Your task to perform on an android device: Open the stopwatch Image 0: 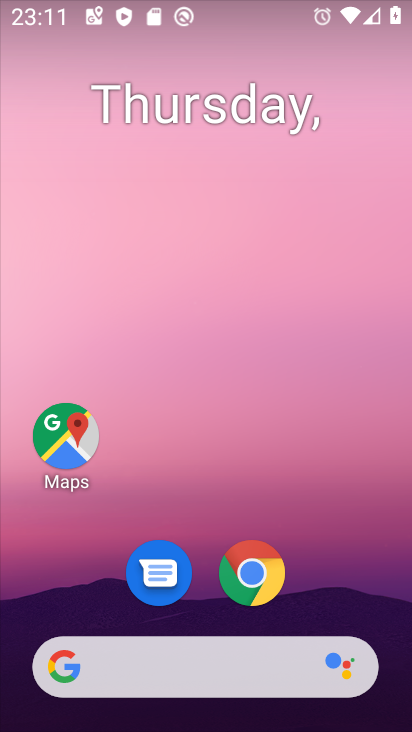
Step 0: drag from (335, 554) to (316, 147)
Your task to perform on an android device: Open the stopwatch Image 1: 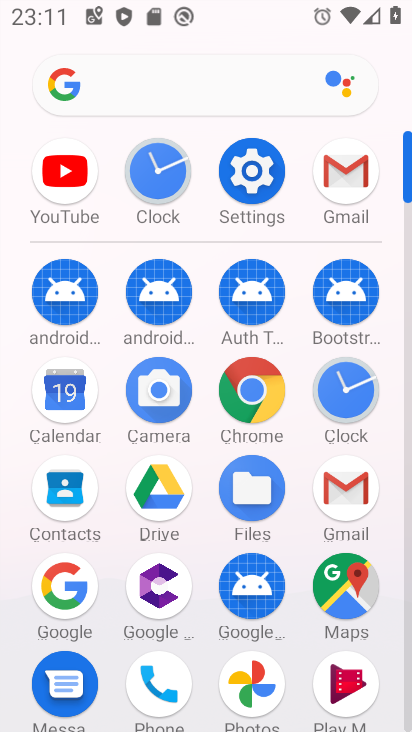
Step 1: click (330, 389)
Your task to perform on an android device: Open the stopwatch Image 2: 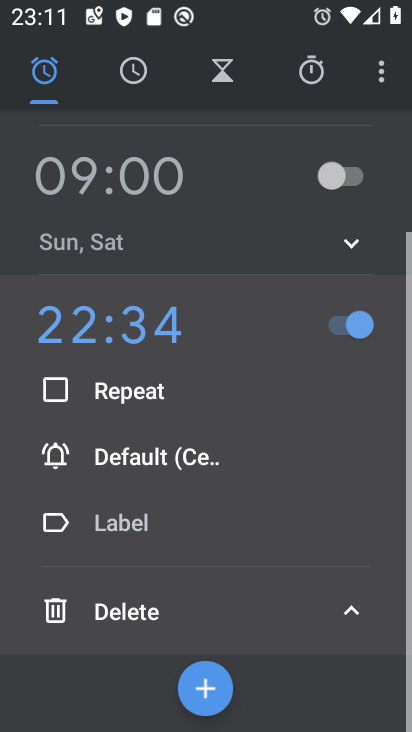
Step 2: click (302, 68)
Your task to perform on an android device: Open the stopwatch Image 3: 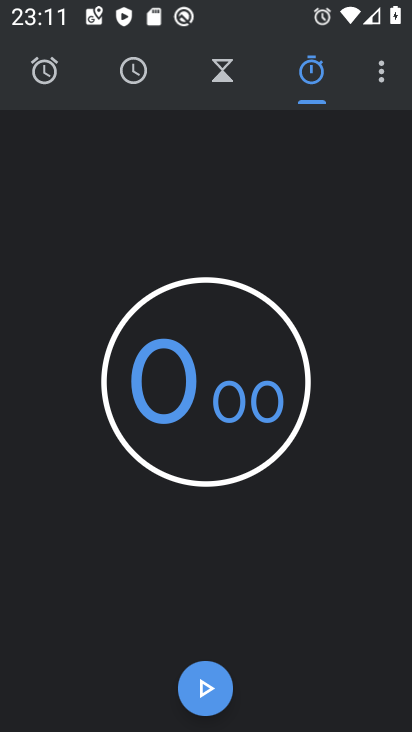
Step 3: task complete